Your task to perform on an android device: empty trash in the gmail app Image 0: 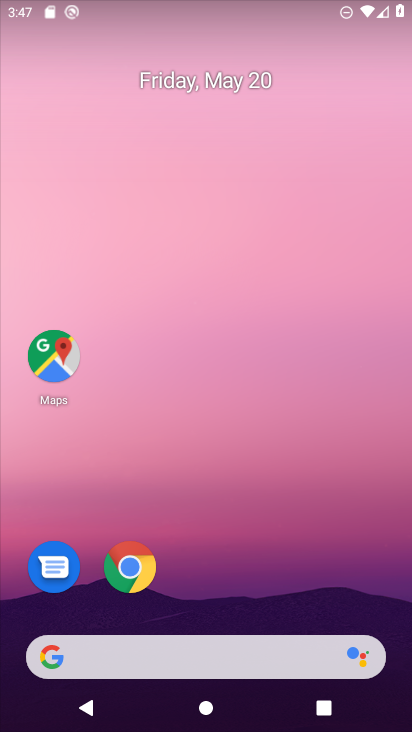
Step 0: drag from (248, 445) to (248, 235)
Your task to perform on an android device: empty trash in the gmail app Image 1: 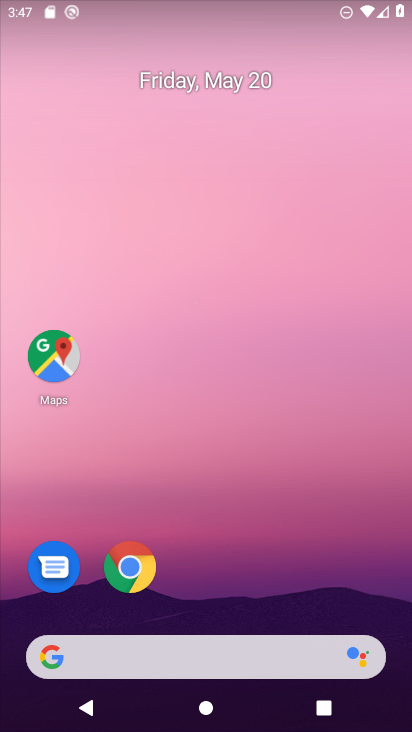
Step 1: drag from (229, 730) to (227, 145)
Your task to perform on an android device: empty trash in the gmail app Image 2: 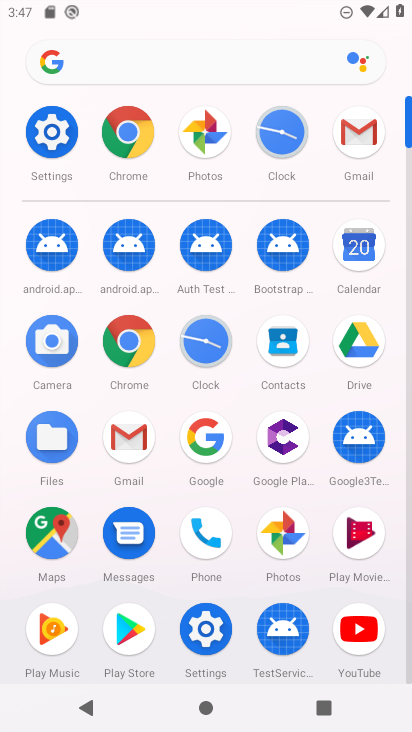
Step 2: click (125, 438)
Your task to perform on an android device: empty trash in the gmail app Image 3: 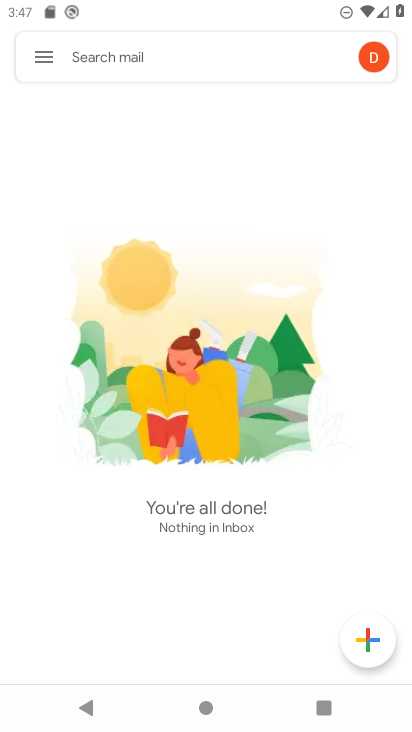
Step 3: click (39, 62)
Your task to perform on an android device: empty trash in the gmail app Image 4: 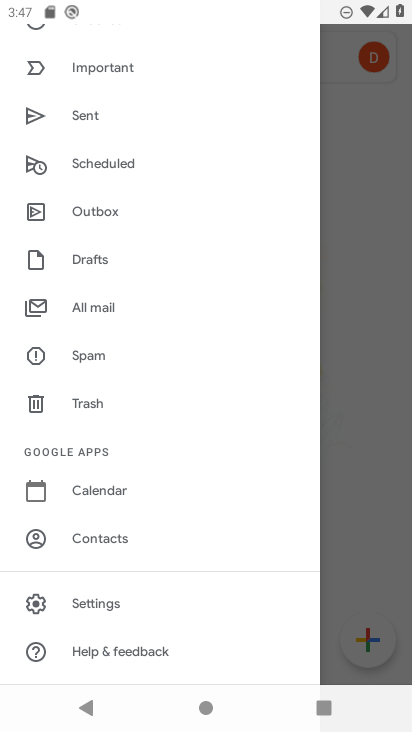
Step 4: click (87, 401)
Your task to perform on an android device: empty trash in the gmail app Image 5: 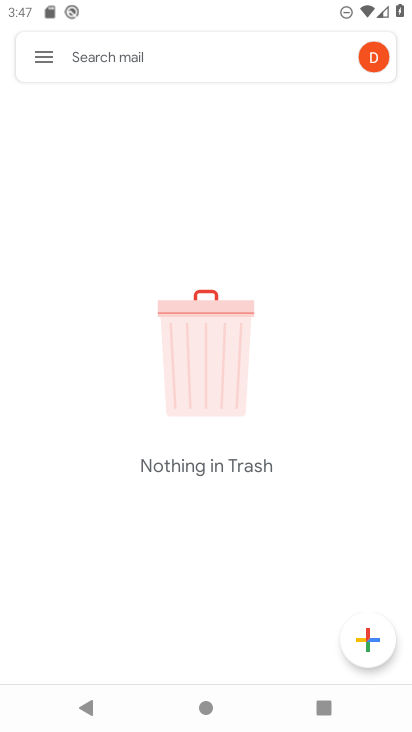
Step 5: task complete